Your task to perform on an android device: clear all cookies in the chrome app Image 0: 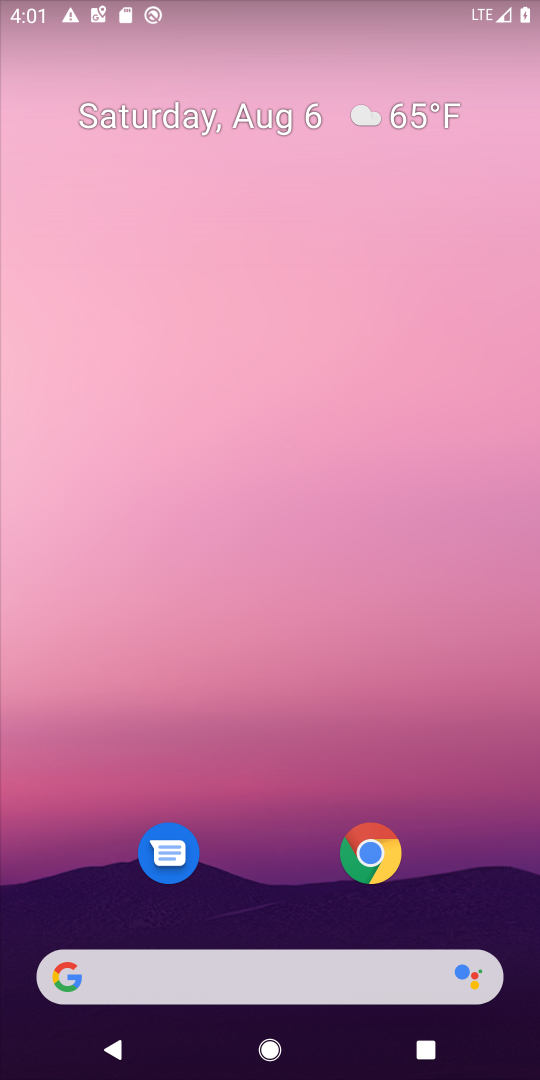
Step 0: click (377, 863)
Your task to perform on an android device: clear all cookies in the chrome app Image 1: 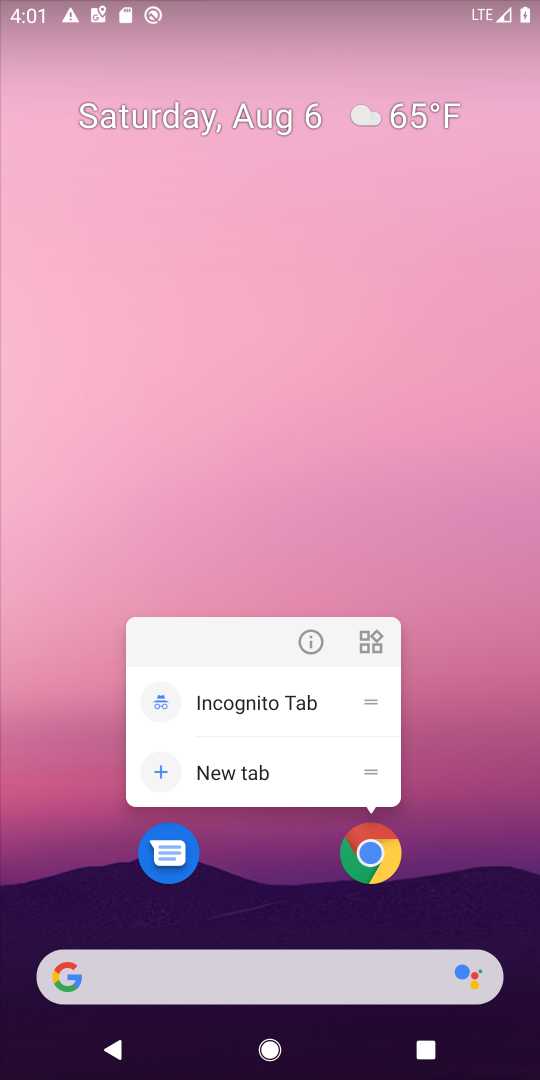
Step 1: click (375, 861)
Your task to perform on an android device: clear all cookies in the chrome app Image 2: 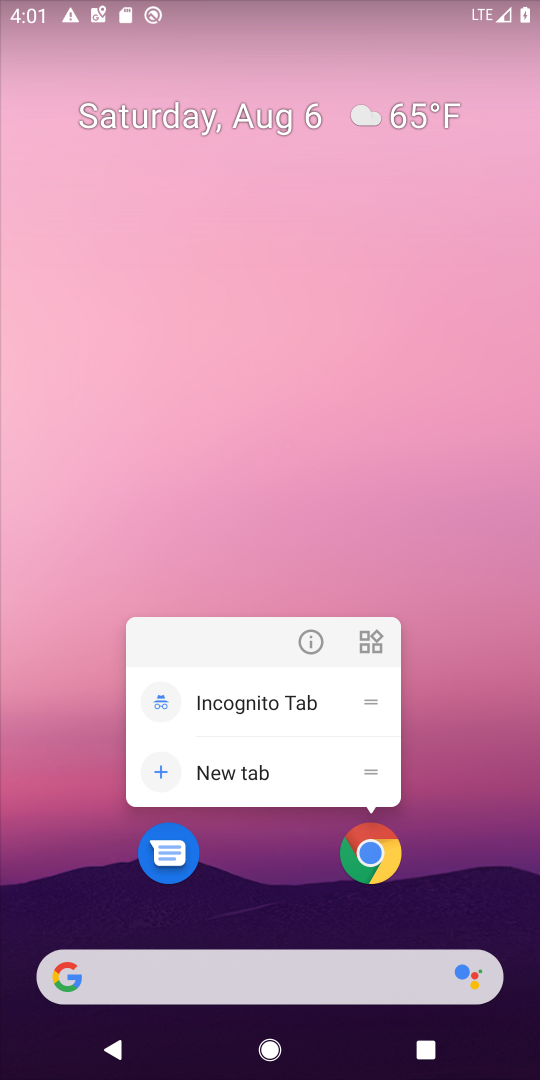
Step 2: click (375, 861)
Your task to perform on an android device: clear all cookies in the chrome app Image 3: 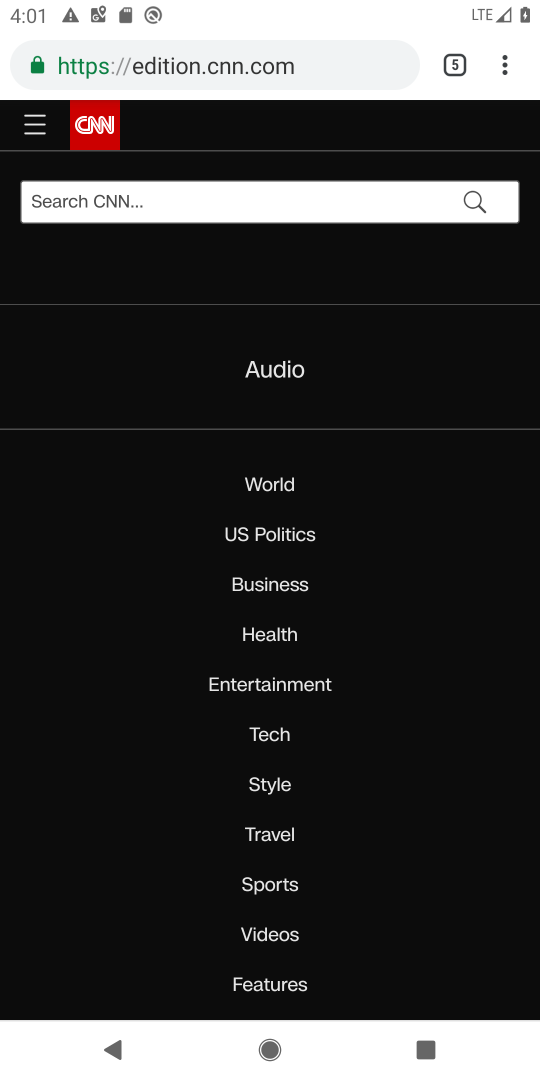
Step 3: drag from (519, 63) to (272, 786)
Your task to perform on an android device: clear all cookies in the chrome app Image 4: 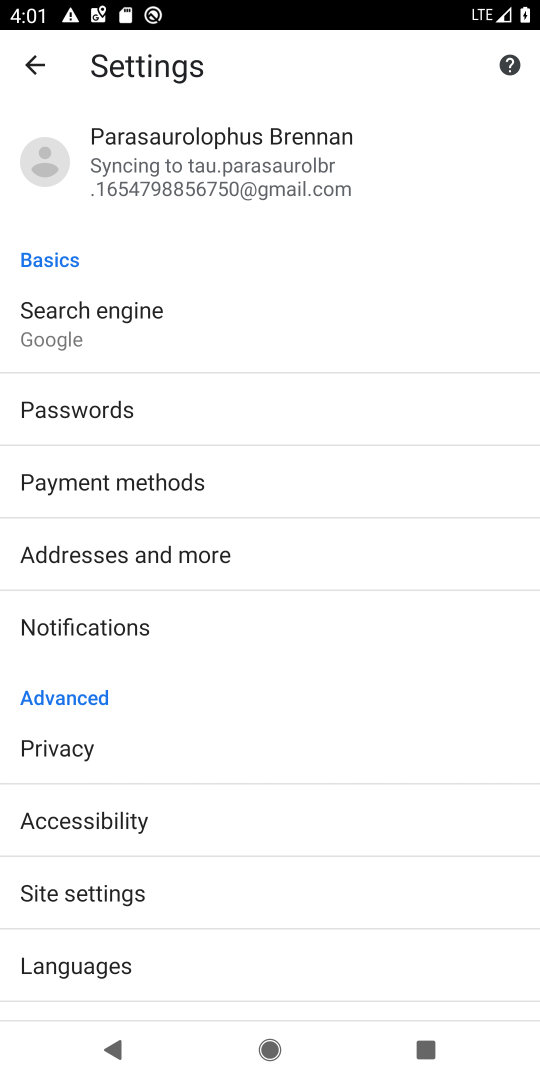
Step 4: drag from (196, 977) to (374, 199)
Your task to perform on an android device: clear all cookies in the chrome app Image 5: 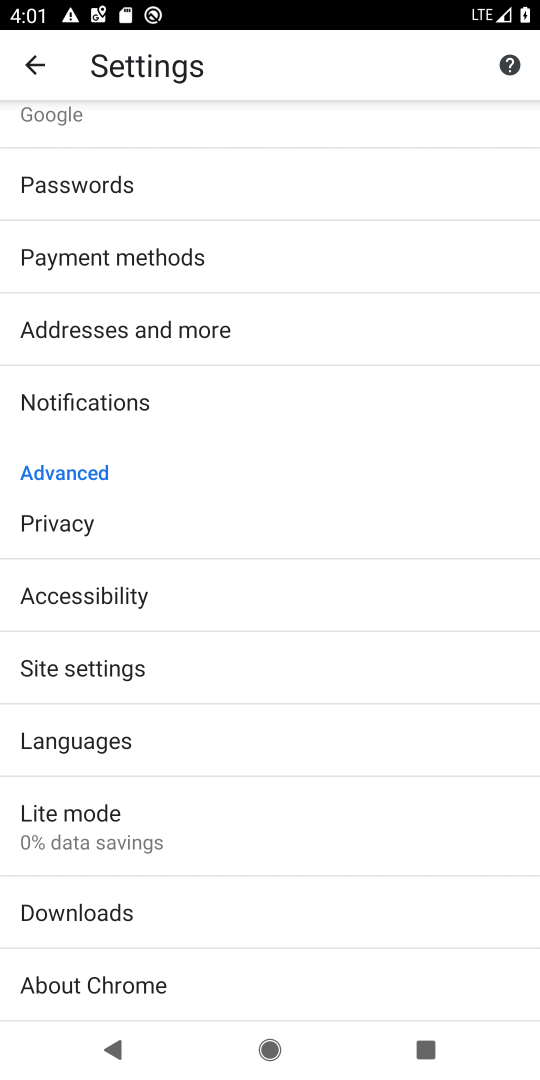
Step 5: click (144, 663)
Your task to perform on an android device: clear all cookies in the chrome app Image 6: 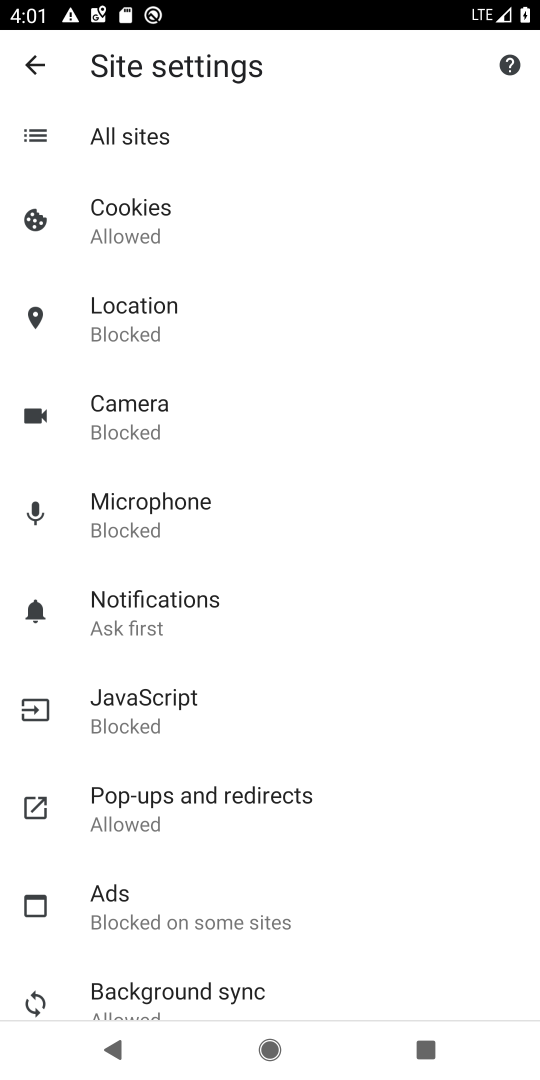
Step 6: click (161, 205)
Your task to perform on an android device: clear all cookies in the chrome app Image 7: 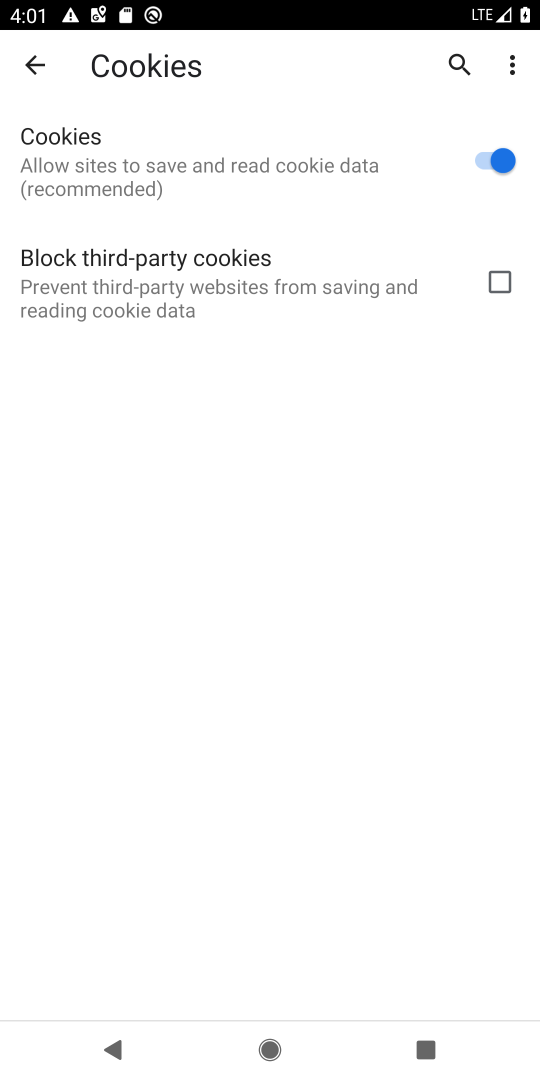
Step 7: click (41, 65)
Your task to perform on an android device: clear all cookies in the chrome app Image 8: 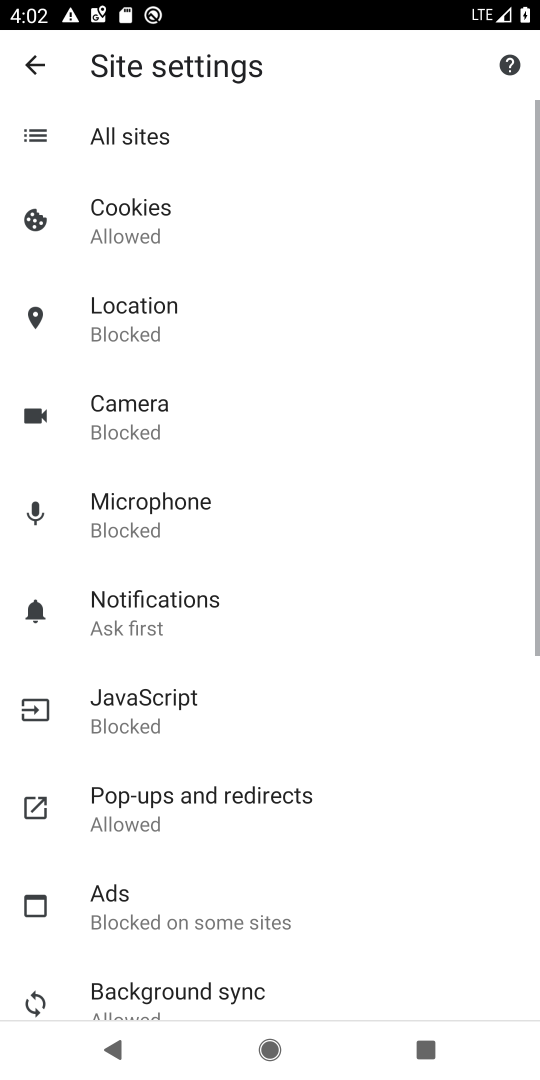
Step 8: click (41, 65)
Your task to perform on an android device: clear all cookies in the chrome app Image 9: 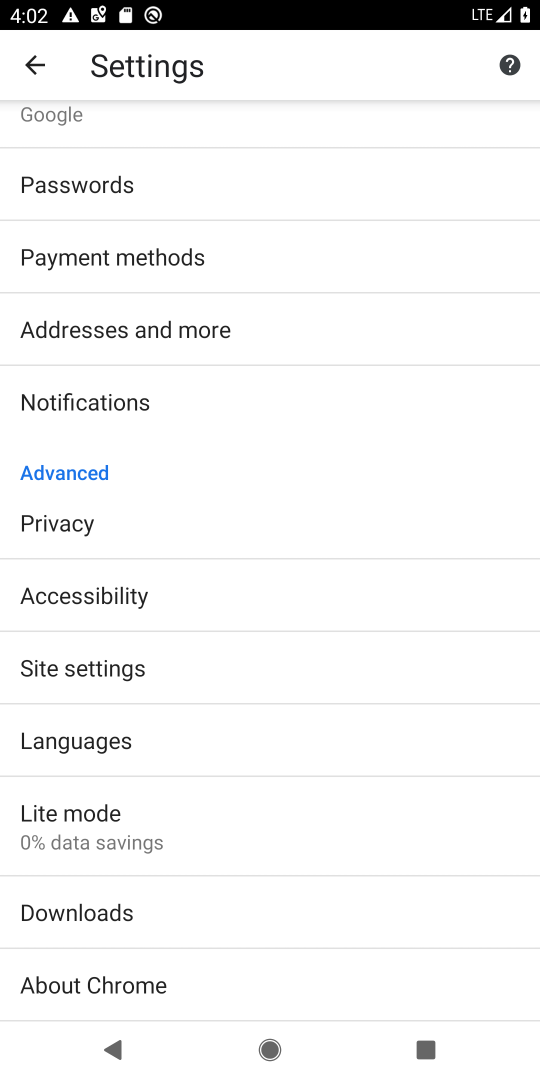
Step 9: click (34, 59)
Your task to perform on an android device: clear all cookies in the chrome app Image 10: 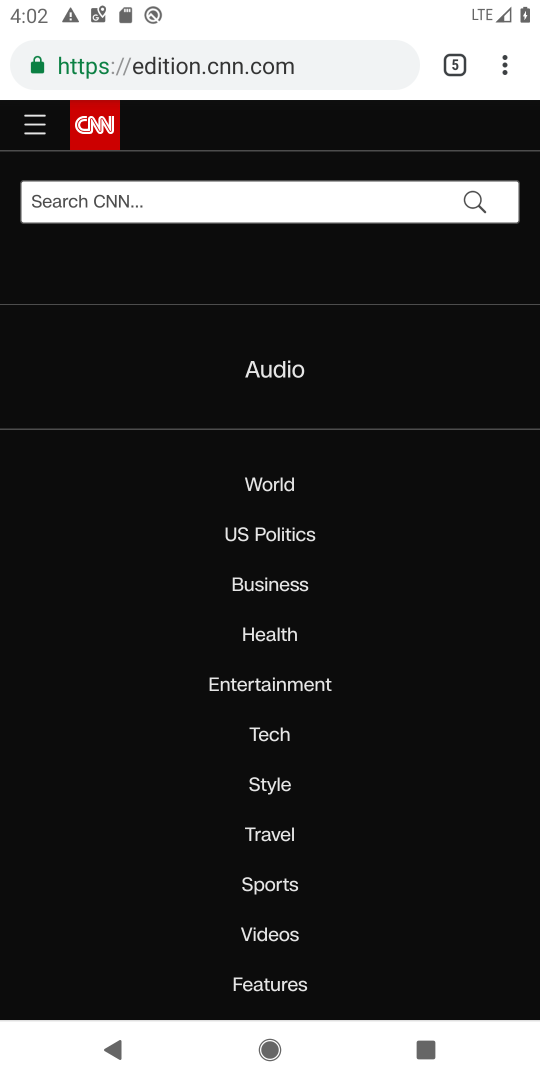
Step 10: drag from (498, 63) to (327, 352)
Your task to perform on an android device: clear all cookies in the chrome app Image 11: 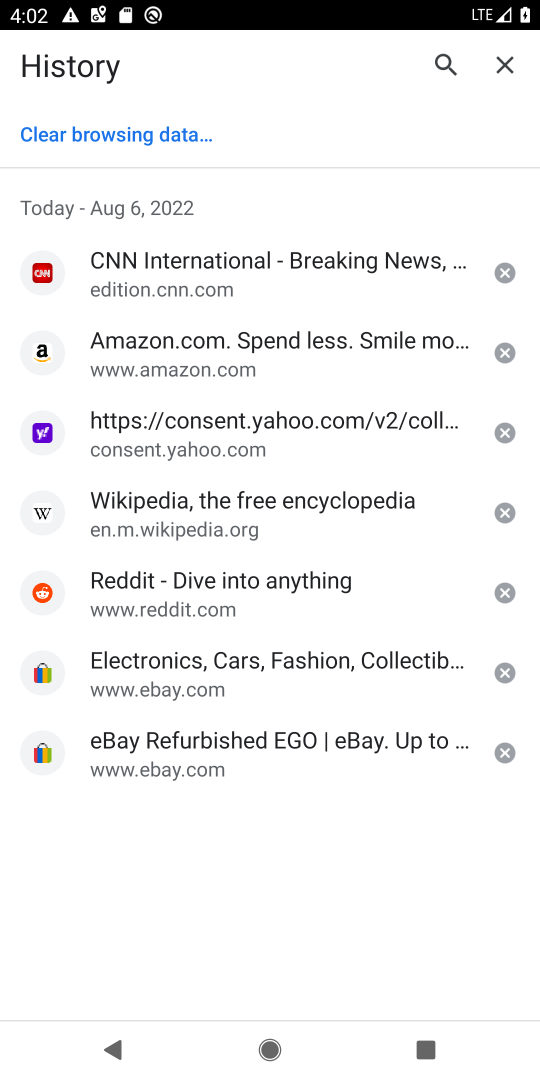
Step 11: click (178, 142)
Your task to perform on an android device: clear all cookies in the chrome app Image 12: 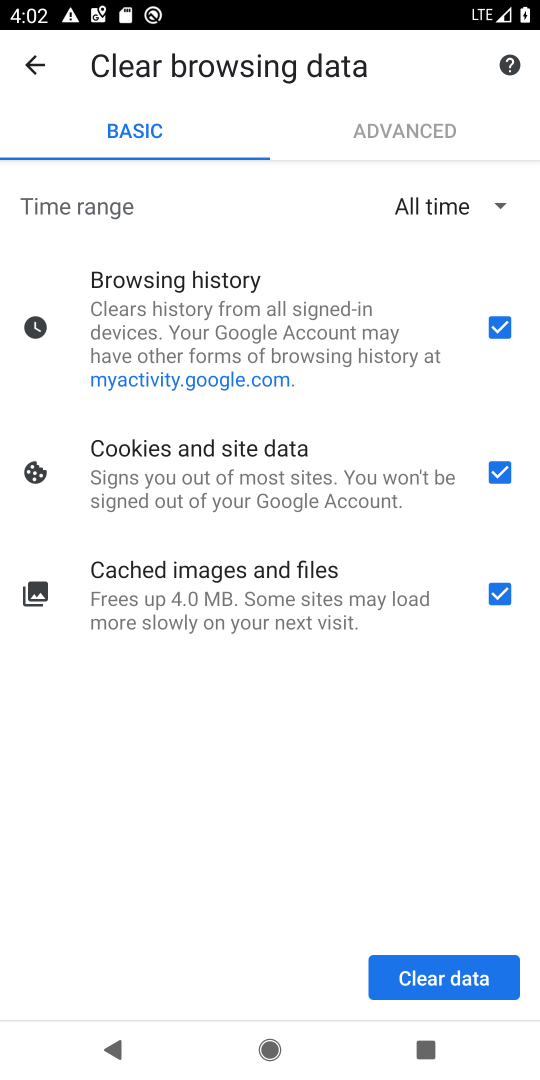
Step 12: click (502, 593)
Your task to perform on an android device: clear all cookies in the chrome app Image 13: 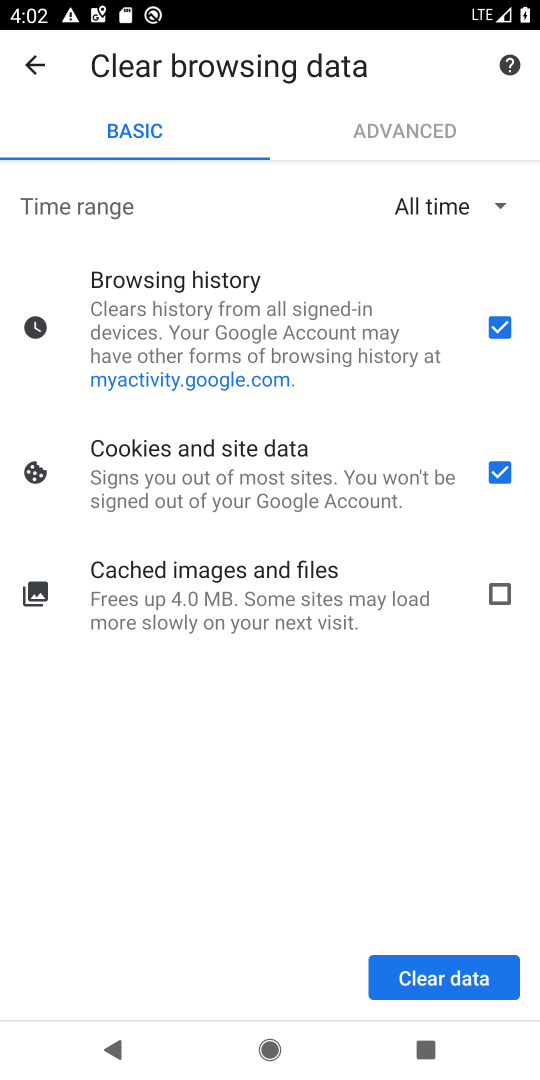
Step 13: click (494, 327)
Your task to perform on an android device: clear all cookies in the chrome app Image 14: 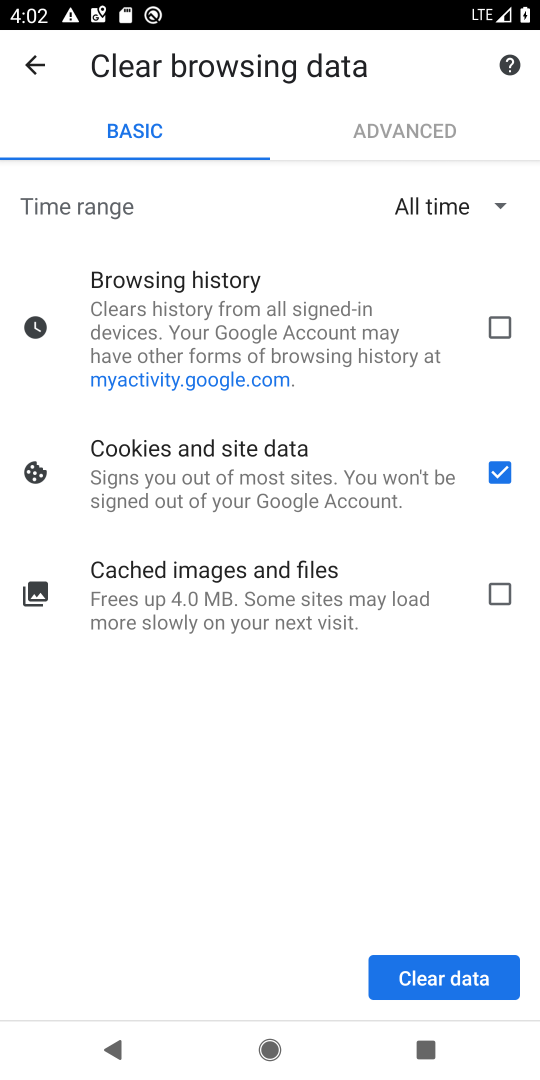
Step 14: click (447, 969)
Your task to perform on an android device: clear all cookies in the chrome app Image 15: 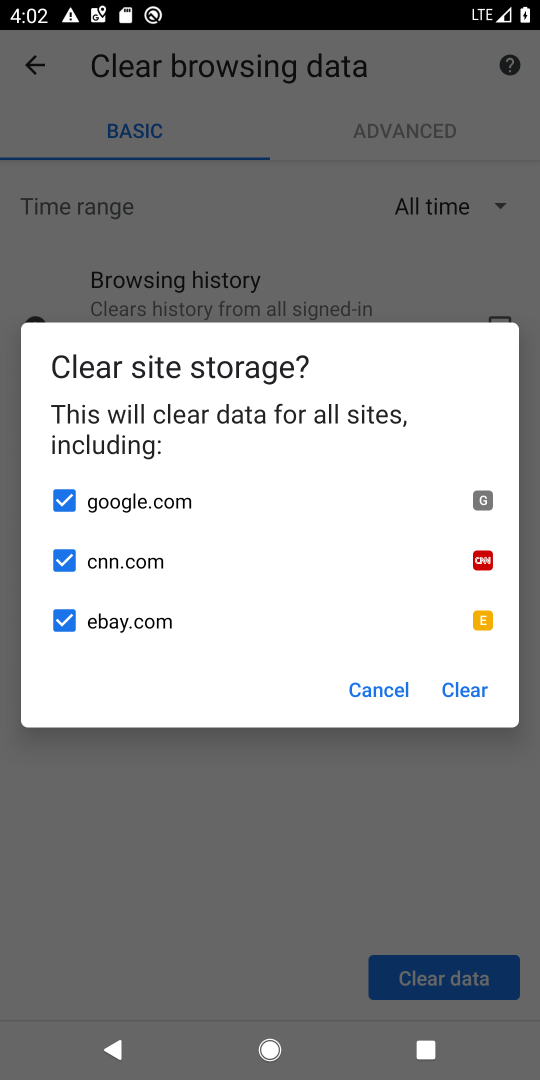
Step 15: click (459, 674)
Your task to perform on an android device: clear all cookies in the chrome app Image 16: 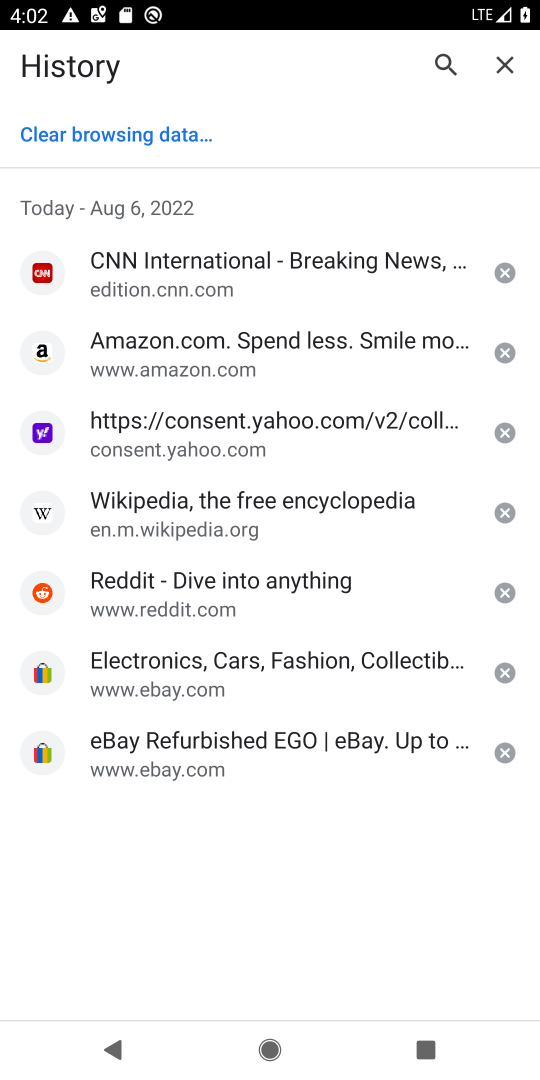
Step 16: task complete